Your task to perform on an android device: set default search engine in the chrome app Image 0: 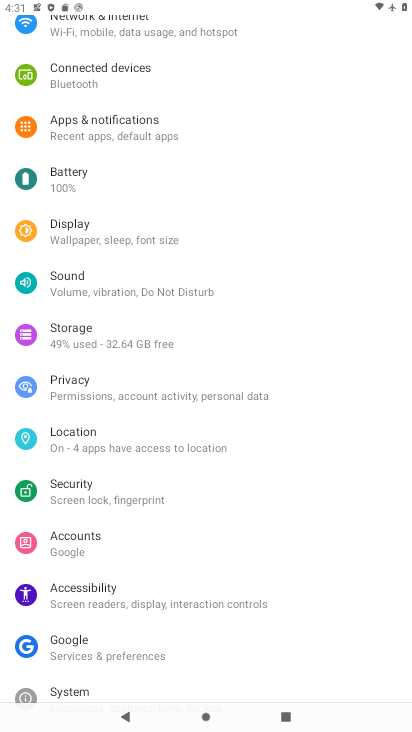
Step 0: press home button
Your task to perform on an android device: set default search engine in the chrome app Image 1: 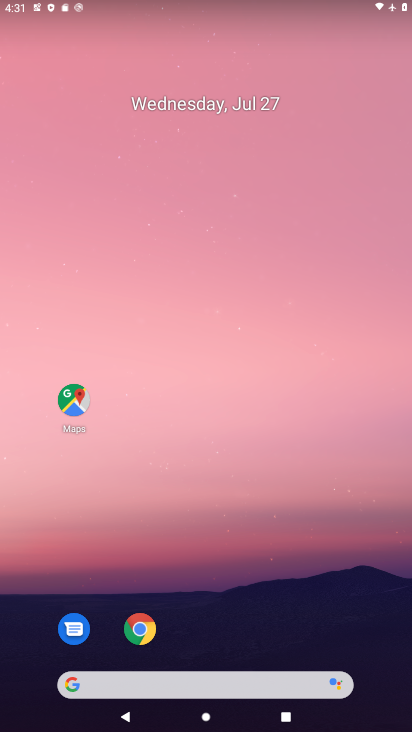
Step 1: click (154, 627)
Your task to perform on an android device: set default search engine in the chrome app Image 2: 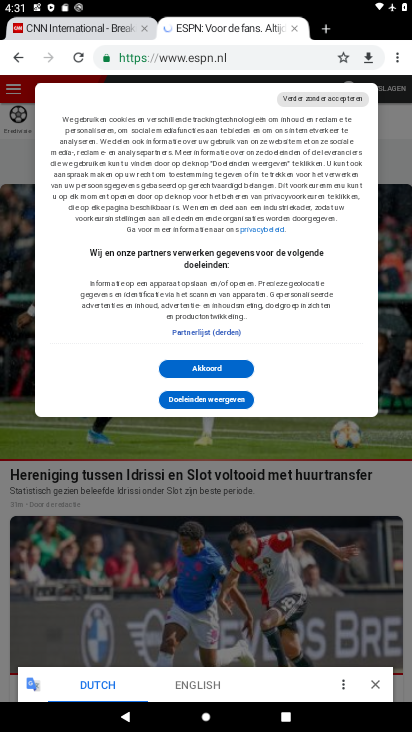
Step 2: click (398, 54)
Your task to perform on an android device: set default search engine in the chrome app Image 3: 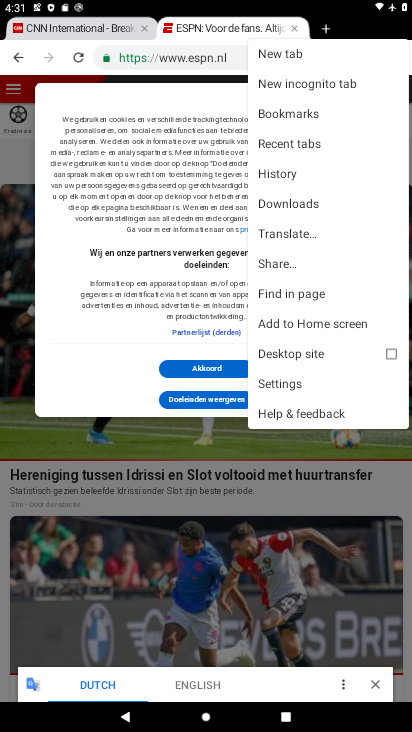
Step 3: click (292, 375)
Your task to perform on an android device: set default search engine in the chrome app Image 4: 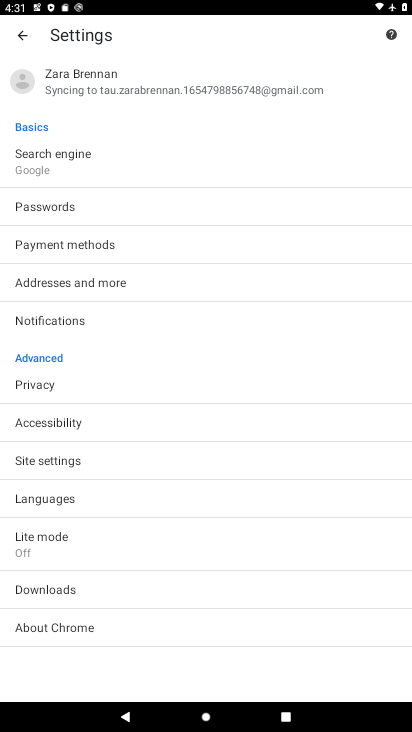
Step 4: click (44, 155)
Your task to perform on an android device: set default search engine in the chrome app Image 5: 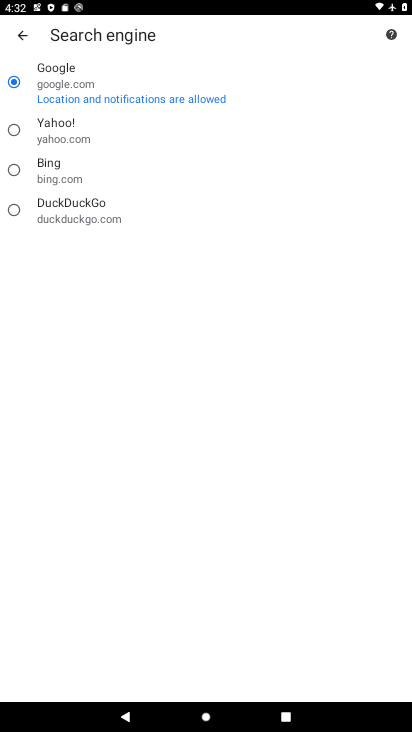
Step 5: task complete